Your task to perform on an android device: Search for vegetarian restaurants on Maps Image 0: 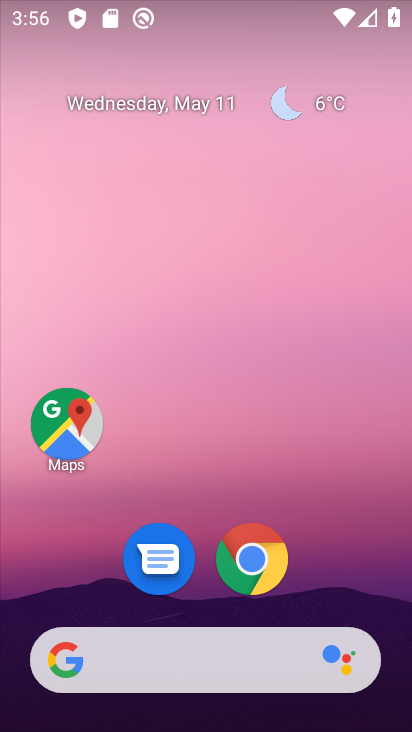
Step 0: drag from (356, 572) to (356, 198)
Your task to perform on an android device: Search for vegetarian restaurants on Maps Image 1: 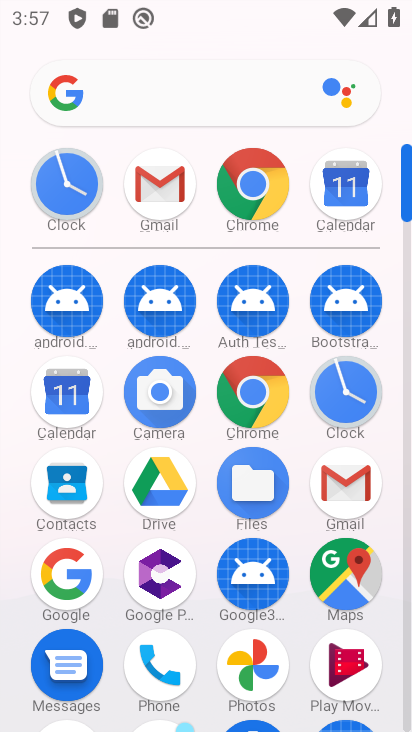
Step 1: click (339, 593)
Your task to perform on an android device: Search for vegetarian restaurants on Maps Image 2: 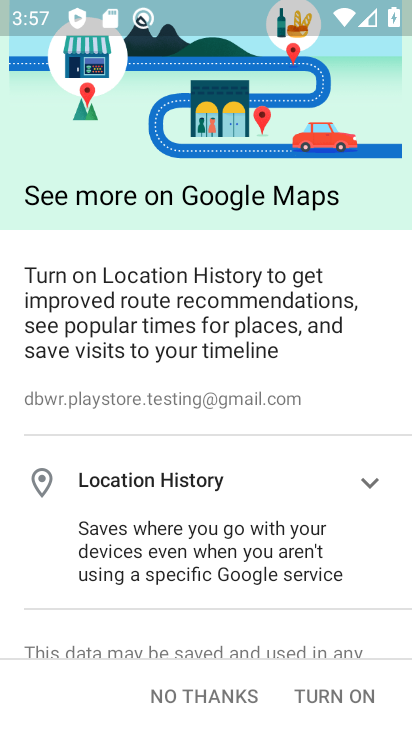
Step 2: click (193, 698)
Your task to perform on an android device: Search for vegetarian restaurants on Maps Image 3: 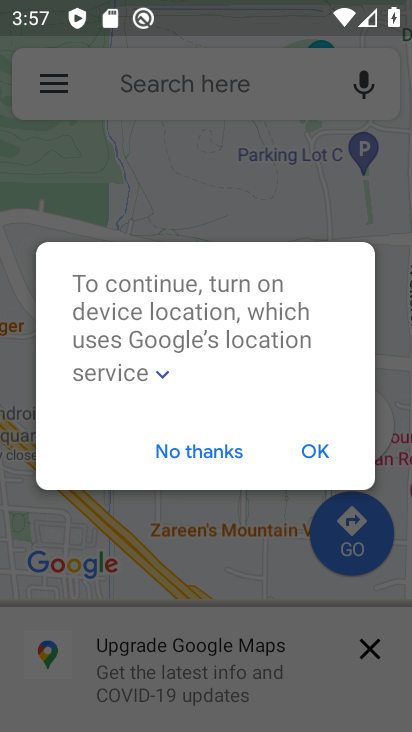
Step 3: click (172, 456)
Your task to perform on an android device: Search for vegetarian restaurants on Maps Image 4: 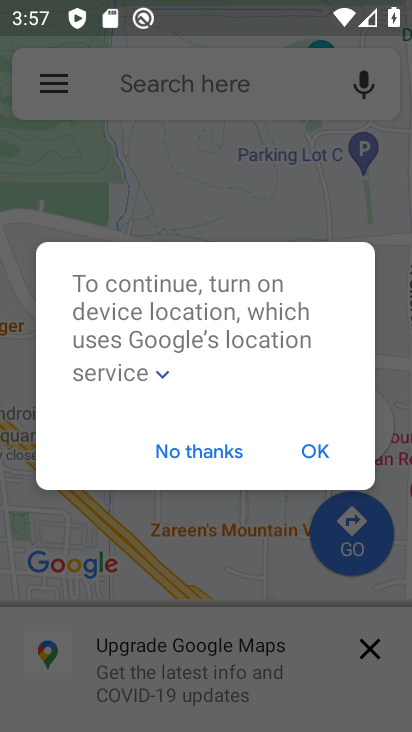
Step 4: click (162, 458)
Your task to perform on an android device: Search for vegetarian restaurants on Maps Image 5: 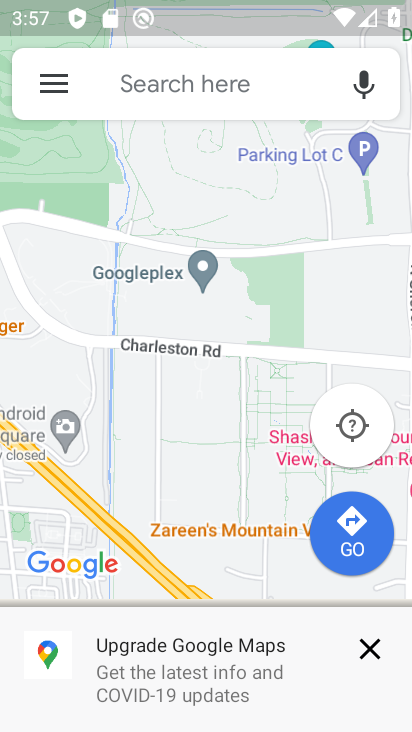
Step 5: click (218, 100)
Your task to perform on an android device: Search for vegetarian restaurants on Maps Image 6: 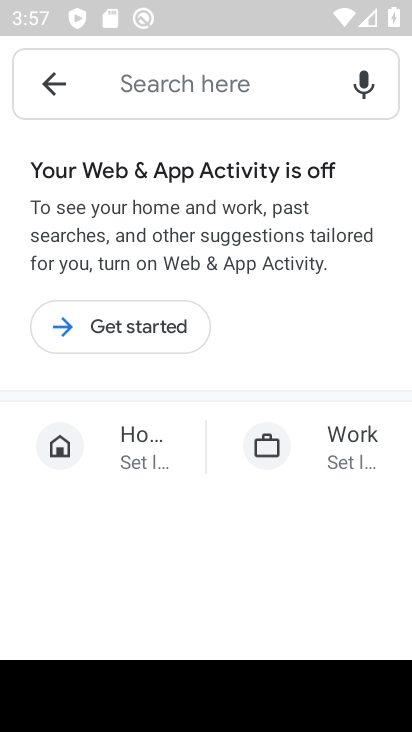
Step 6: type "vegetarian resturents"
Your task to perform on an android device: Search for vegetarian restaurants on Maps Image 7: 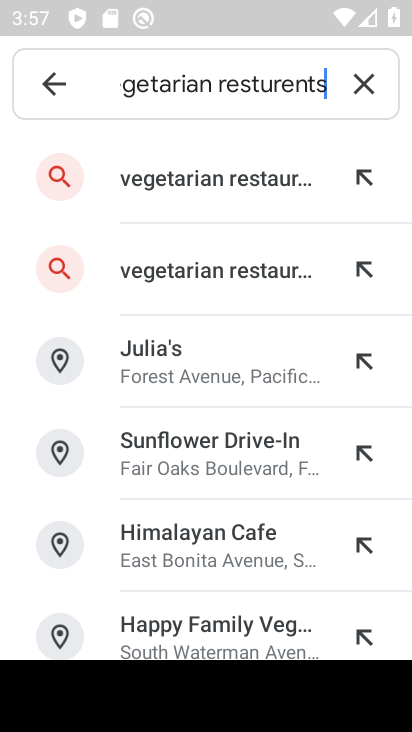
Step 7: click (219, 192)
Your task to perform on an android device: Search for vegetarian restaurants on Maps Image 8: 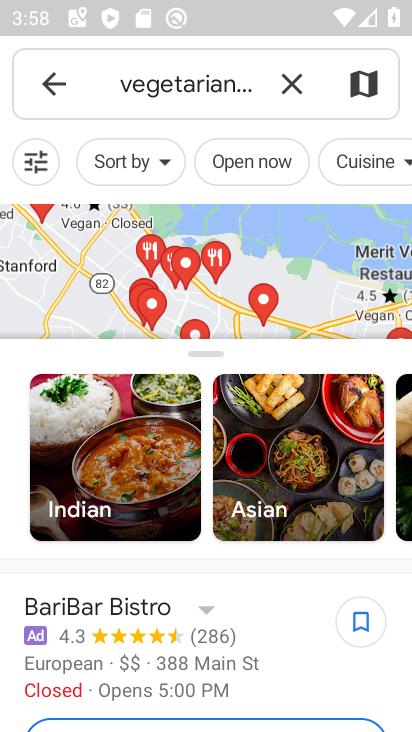
Step 8: task complete